Your task to perform on an android device: Open the stopwatch Image 0: 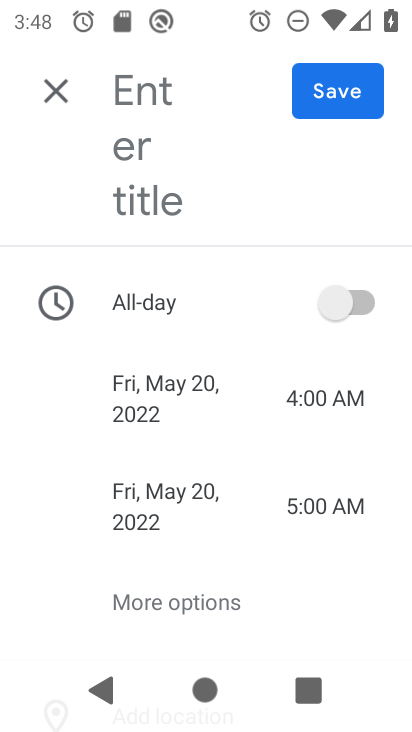
Step 0: press home button
Your task to perform on an android device: Open the stopwatch Image 1: 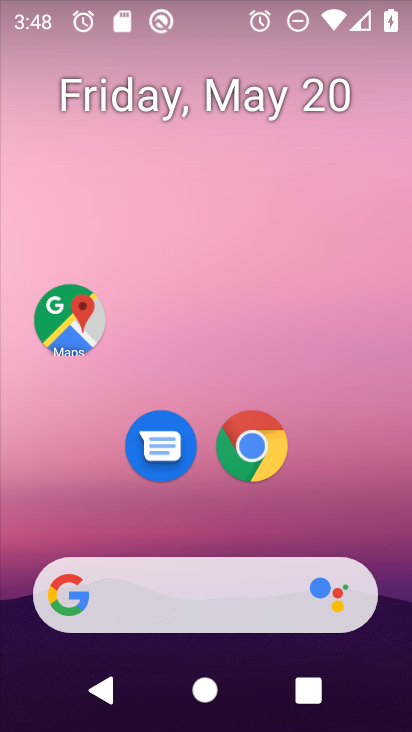
Step 1: drag from (369, 544) to (372, 8)
Your task to perform on an android device: Open the stopwatch Image 2: 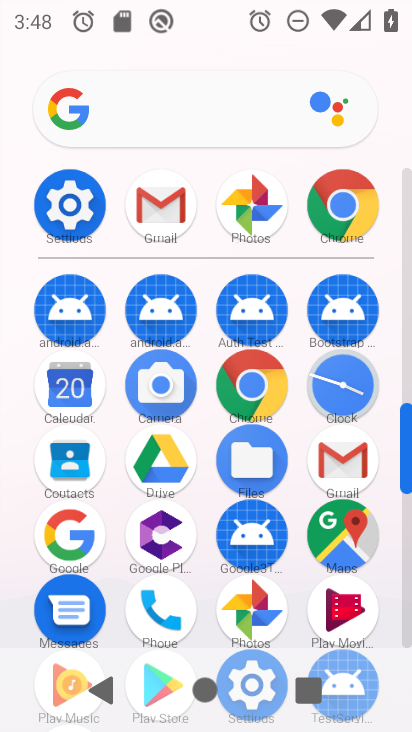
Step 2: click (344, 388)
Your task to perform on an android device: Open the stopwatch Image 3: 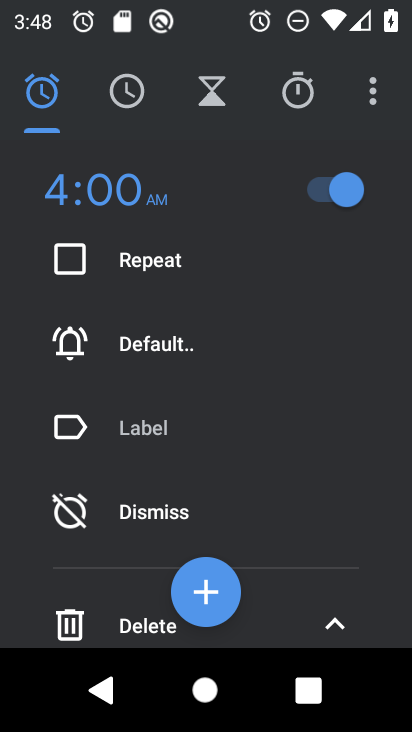
Step 3: click (303, 100)
Your task to perform on an android device: Open the stopwatch Image 4: 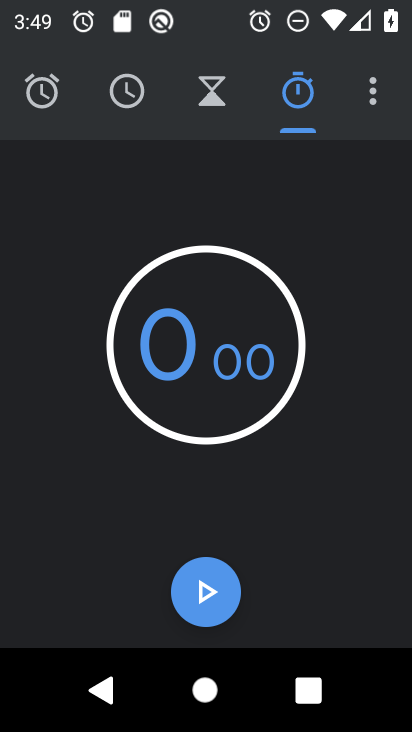
Step 4: task complete